Your task to perform on an android device: turn pop-ups on in chrome Image 0: 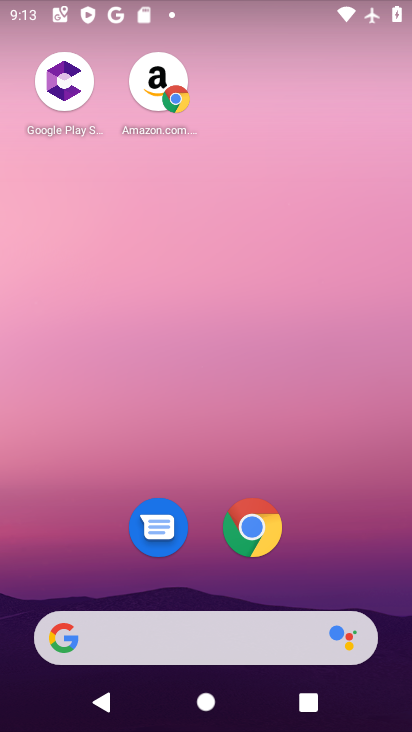
Step 0: click (274, 539)
Your task to perform on an android device: turn pop-ups on in chrome Image 1: 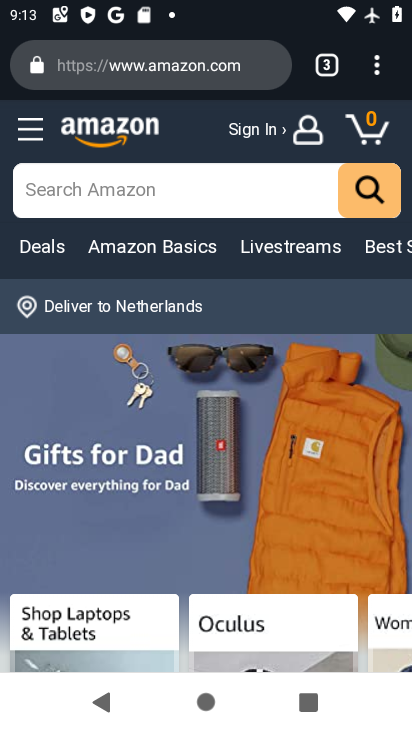
Step 1: click (378, 69)
Your task to perform on an android device: turn pop-ups on in chrome Image 2: 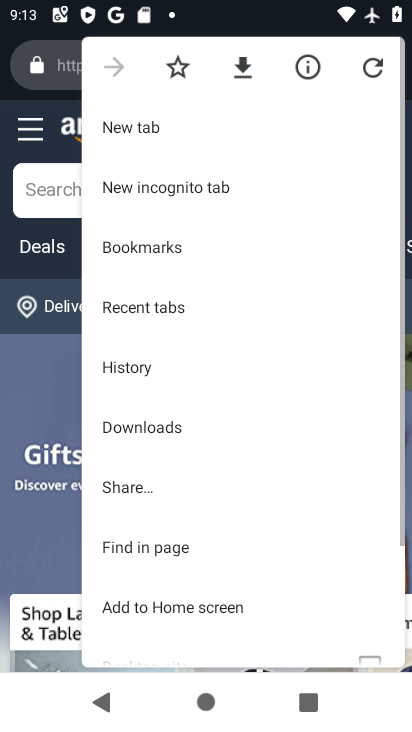
Step 2: drag from (302, 598) to (284, 235)
Your task to perform on an android device: turn pop-ups on in chrome Image 3: 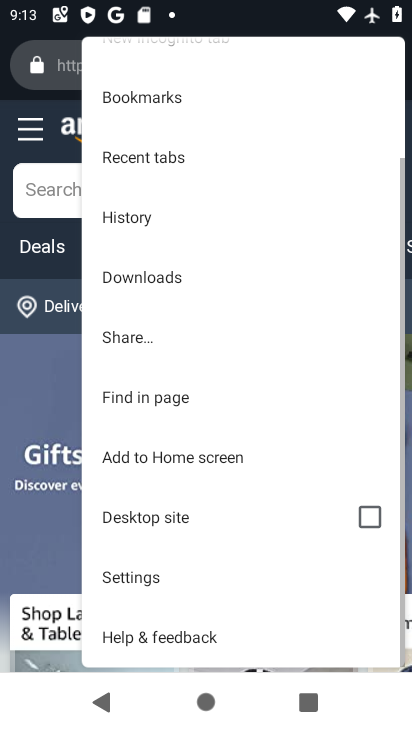
Step 3: click (158, 563)
Your task to perform on an android device: turn pop-ups on in chrome Image 4: 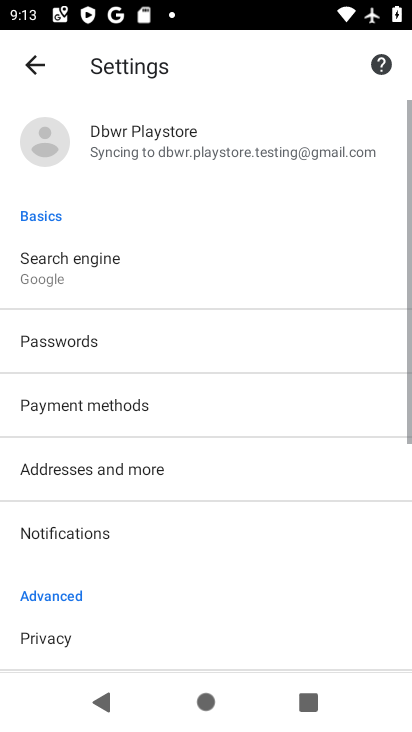
Step 4: drag from (157, 563) to (200, 235)
Your task to perform on an android device: turn pop-ups on in chrome Image 5: 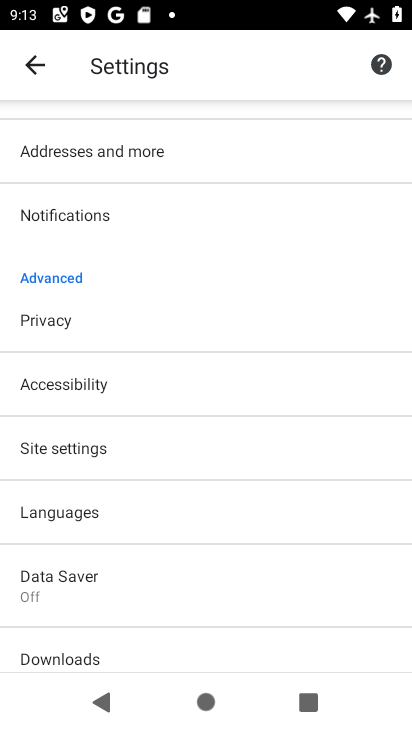
Step 5: click (164, 434)
Your task to perform on an android device: turn pop-ups on in chrome Image 6: 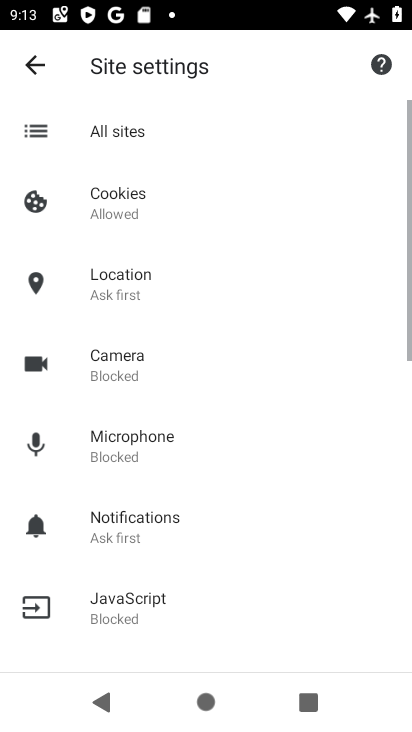
Step 6: drag from (189, 556) to (218, 237)
Your task to perform on an android device: turn pop-ups on in chrome Image 7: 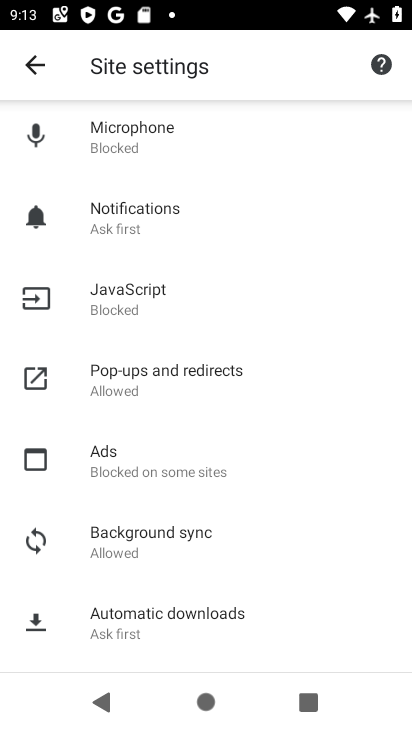
Step 7: drag from (228, 486) to (245, 229)
Your task to perform on an android device: turn pop-ups on in chrome Image 8: 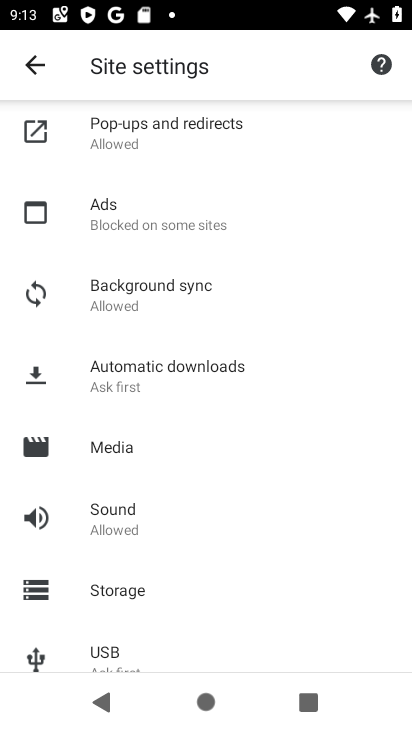
Step 8: drag from (255, 262) to (272, 685)
Your task to perform on an android device: turn pop-ups on in chrome Image 9: 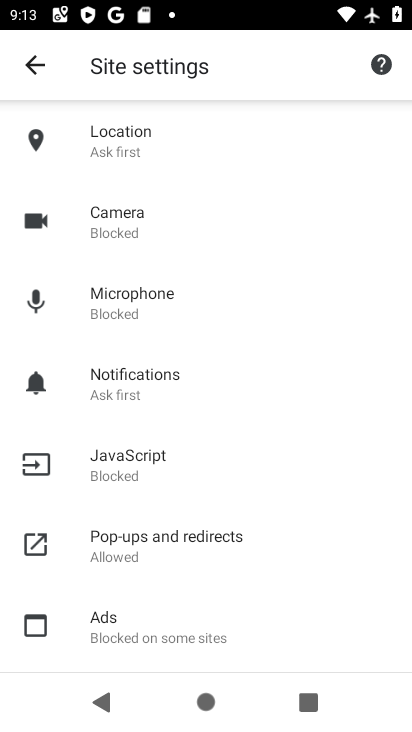
Step 9: drag from (295, 309) to (321, 677)
Your task to perform on an android device: turn pop-ups on in chrome Image 10: 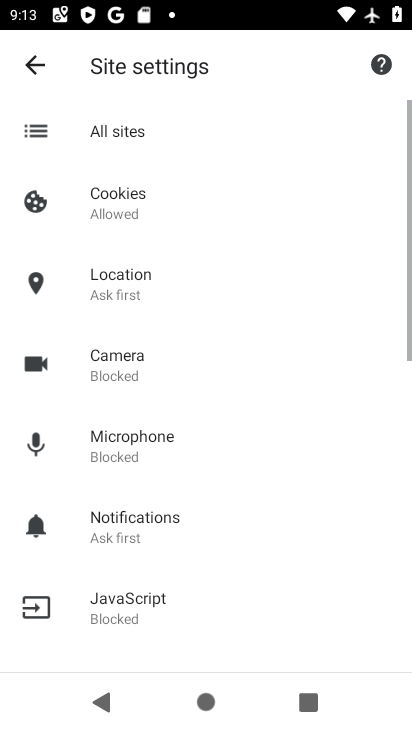
Step 10: drag from (285, 584) to (291, 275)
Your task to perform on an android device: turn pop-ups on in chrome Image 11: 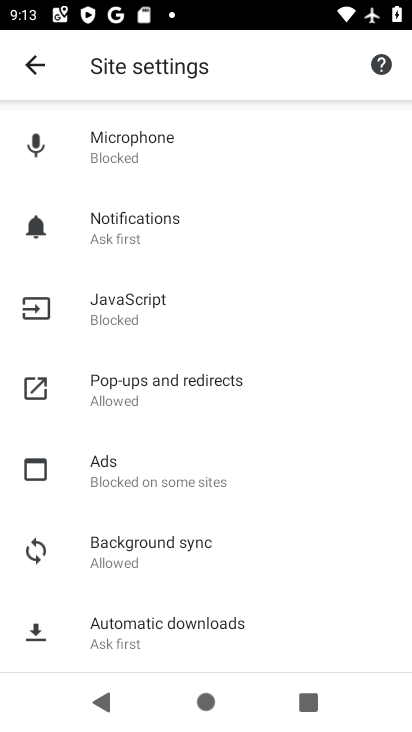
Step 11: click (237, 394)
Your task to perform on an android device: turn pop-ups on in chrome Image 12: 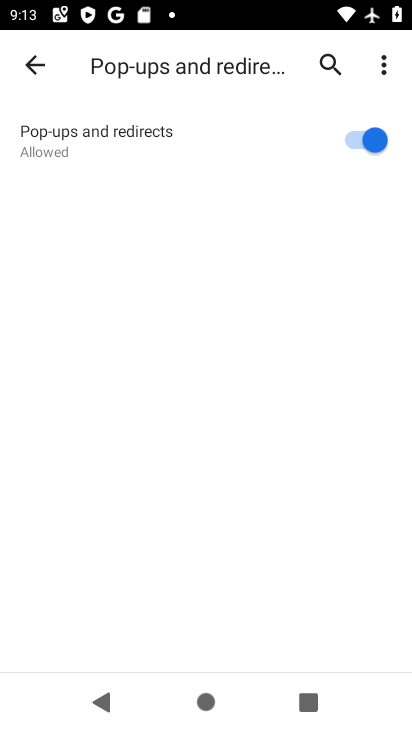
Step 12: task complete